Your task to perform on an android device: check battery use Image 0: 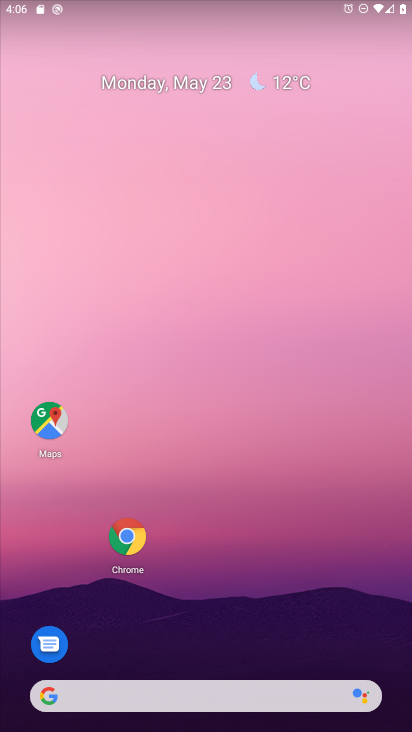
Step 0: drag from (282, 611) to (277, 180)
Your task to perform on an android device: check battery use Image 1: 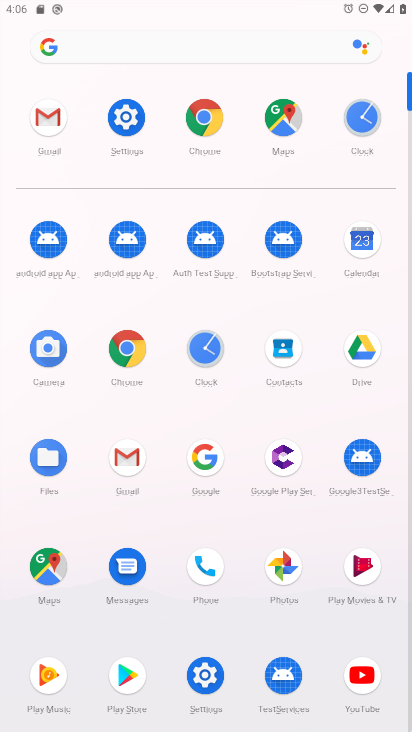
Step 1: click (129, 116)
Your task to perform on an android device: check battery use Image 2: 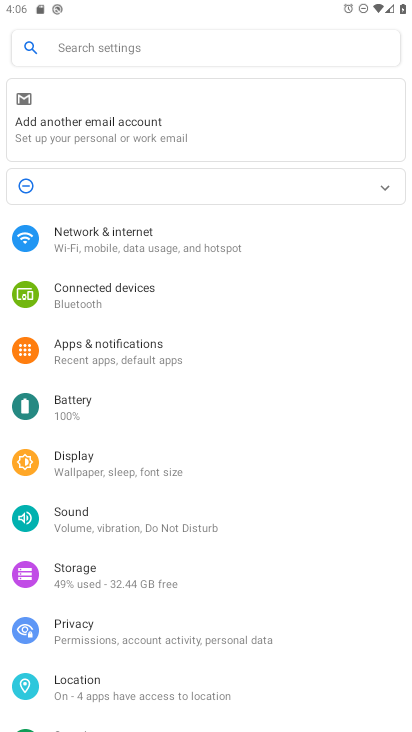
Step 2: click (107, 417)
Your task to perform on an android device: check battery use Image 3: 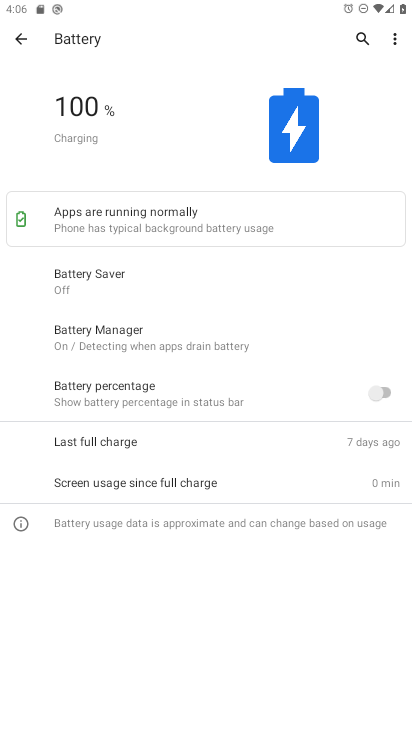
Step 3: click (405, 30)
Your task to perform on an android device: check battery use Image 4: 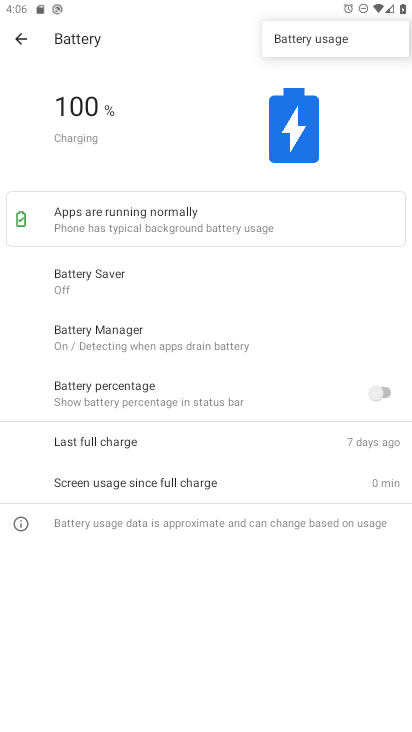
Step 4: click (358, 45)
Your task to perform on an android device: check battery use Image 5: 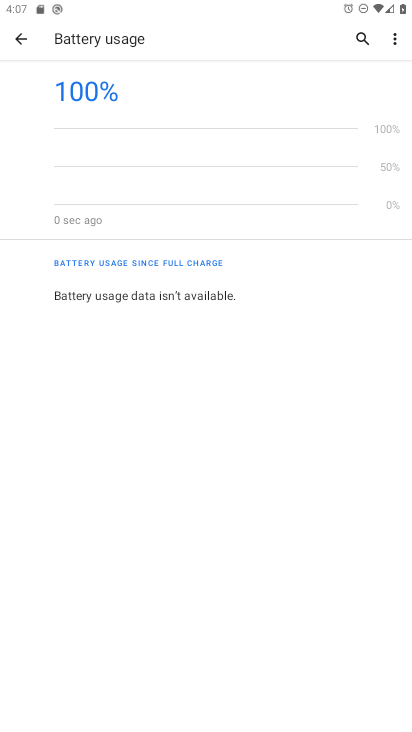
Step 5: task complete